Your task to perform on an android device: turn on improve location accuracy Image 0: 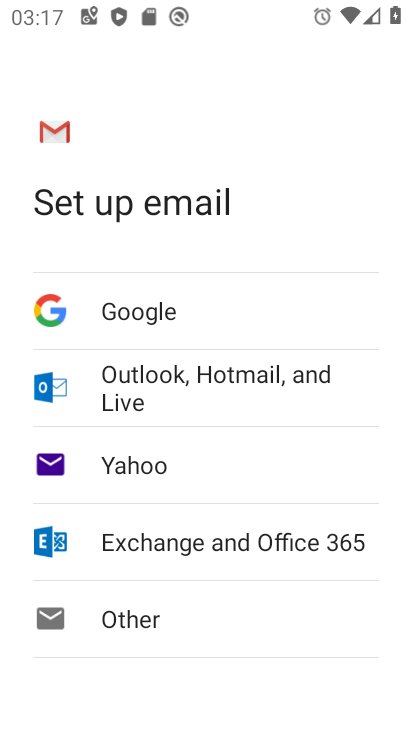
Step 0: press home button
Your task to perform on an android device: turn on improve location accuracy Image 1: 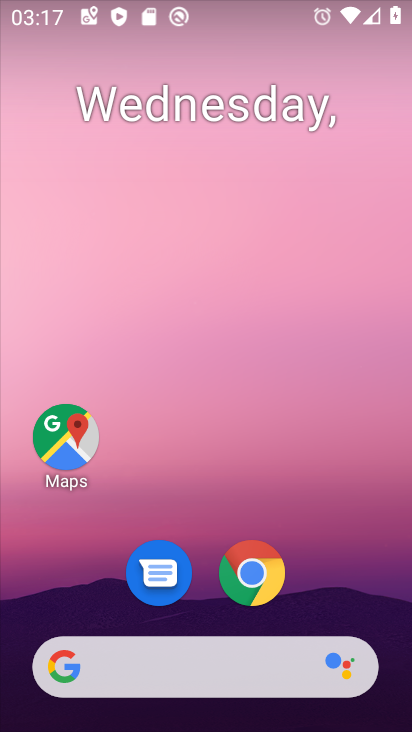
Step 1: drag from (210, 724) to (199, 170)
Your task to perform on an android device: turn on improve location accuracy Image 2: 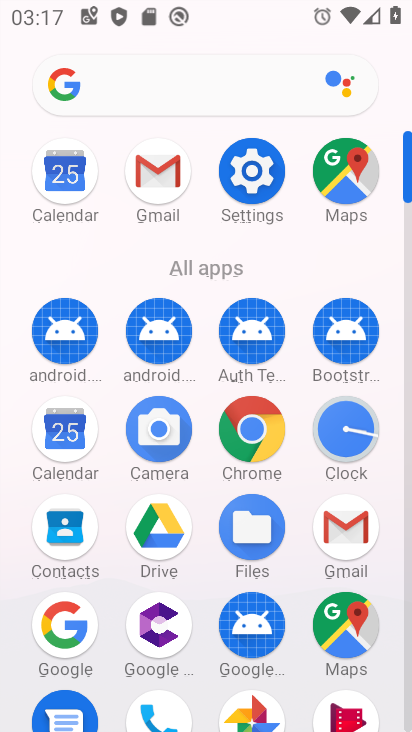
Step 2: click (252, 160)
Your task to perform on an android device: turn on improve location accuracy Image 3: 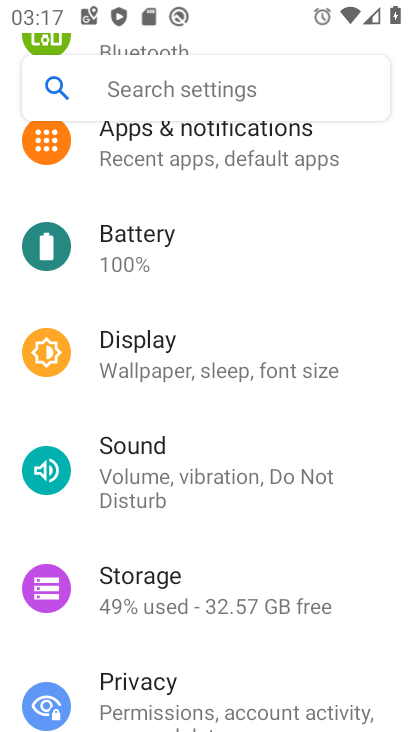
Step 3: drag from (170, 666) to (179, 249)
Your task to perform on an android device: turn on improve location accuracy Image 4: 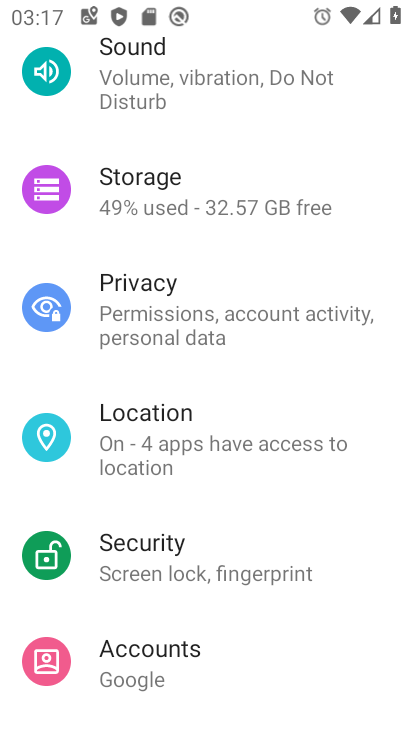
Step 4: click (146, 427)
Your task to perform on an android device: turn on improve location accuracy Image 5: 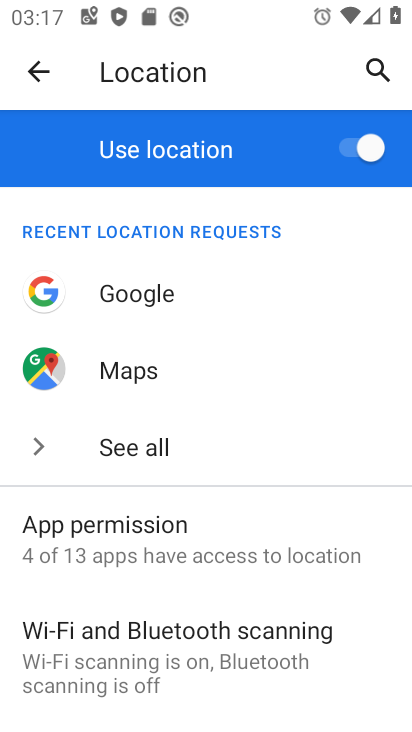
Step 5: drag from (164, 669) to (167, 317)
Your task to perform on an android device: turn on improve location accuracy Image 6: 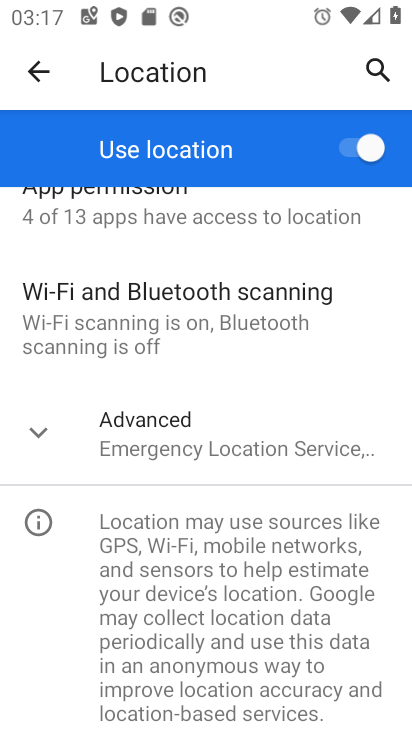
Step 6: click (154, 430)
Your task to perform on an android device: turn on improve location accuracy Image 7: 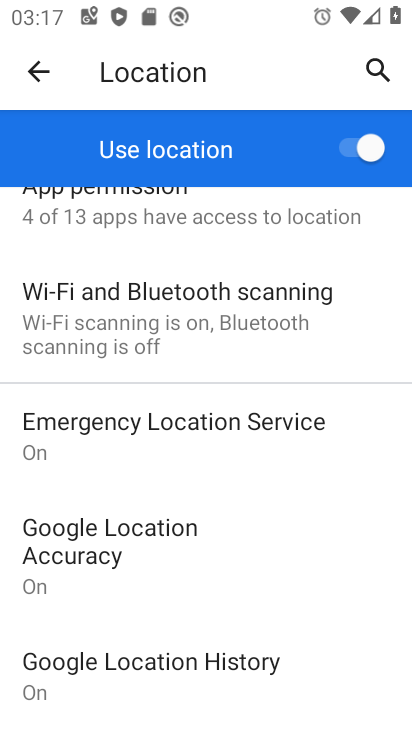
Step 7: click (121, 534)
Your task to perform on an android device: turn on improve location accuracy Image 8: 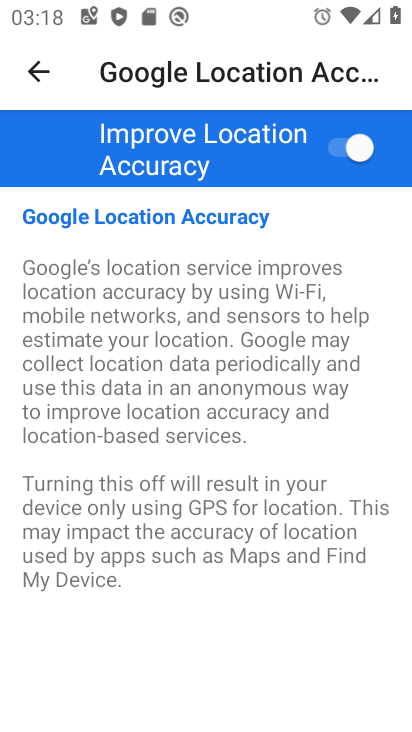
Step 8: task complete